Your task to perform on an android device: uninstall "Facebook Lite" Image 0: 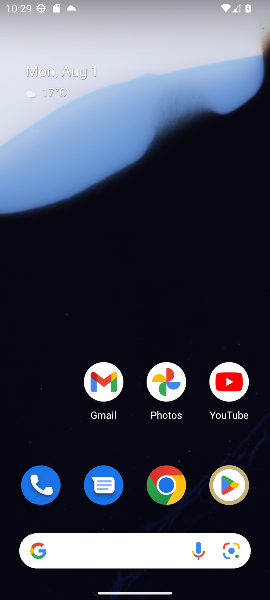
Step 0: drag from (135, 531) to (258, 18)
Your task to perform on an android device: uninstall "Facebook Lite" Image 1: 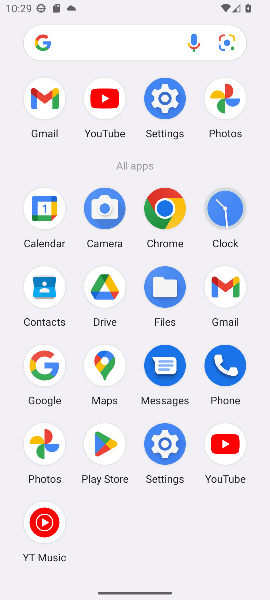
Step 1: click (101, 448)
Your task to perform on an android device: uninstall "Facebook Lite" Image 2: 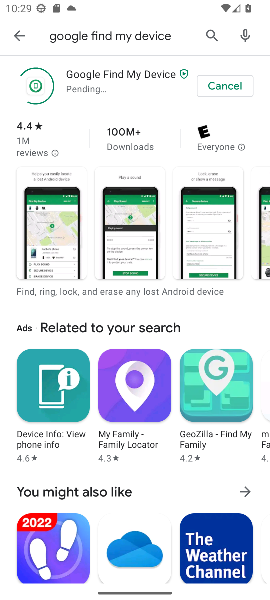
Step 2: click (212, 35)
Your task to perform on an android device: uninstall "Facebook Lite" Image 3: 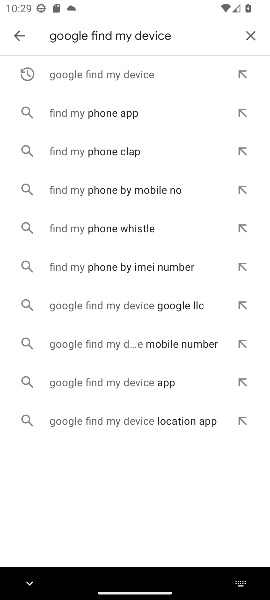
Step 3: click (254, 31)
Your task to perform on an android device: uninstall "Facebook Lite" Image 4: 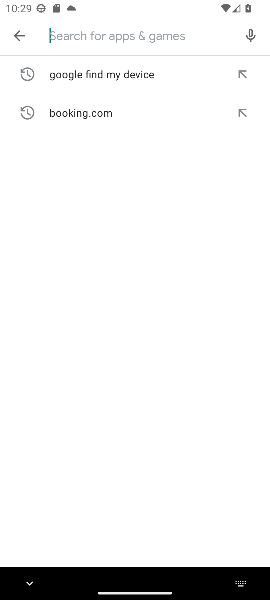
Step 4: type "facebook lite"
Your task to perform on an android device: uninstall "Facebook Lite" Image 5: 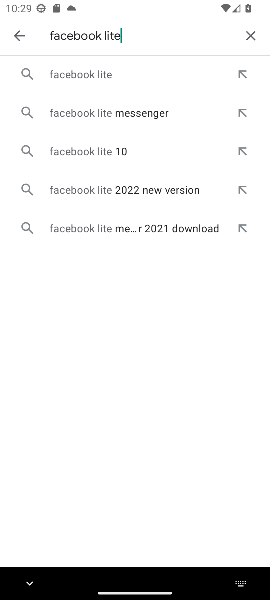
Step 5: click (97, 73)
Your task to perform on an android device: uninstall "Facebook Lite" Image 6: 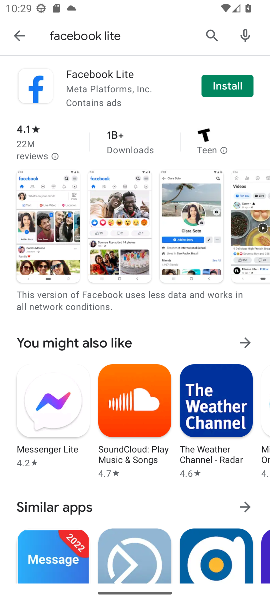
Step 6: task complete